Your task to perform on an android device: turn on sleep mode Image 0: 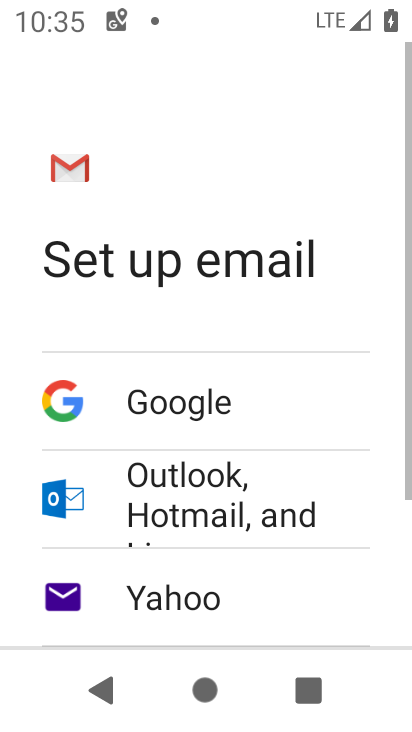
Step 0: press home button
Your task to perform on an android device: turn on sleep mode Image 1: 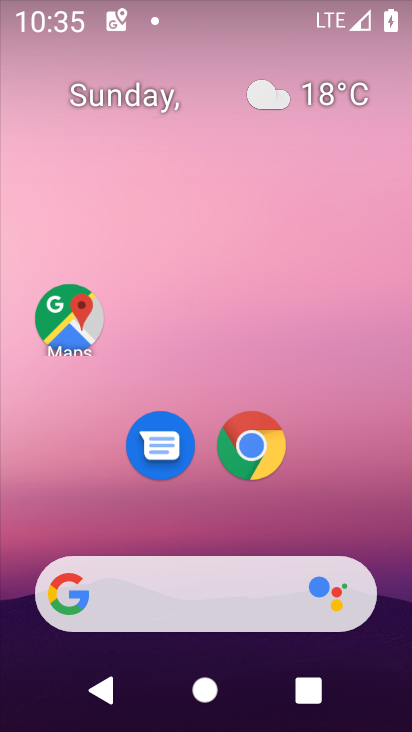
Step 1: drag from (206, 514) to (204, 10)
Your task to perform on an android device: turn on sleep mode Image 2: 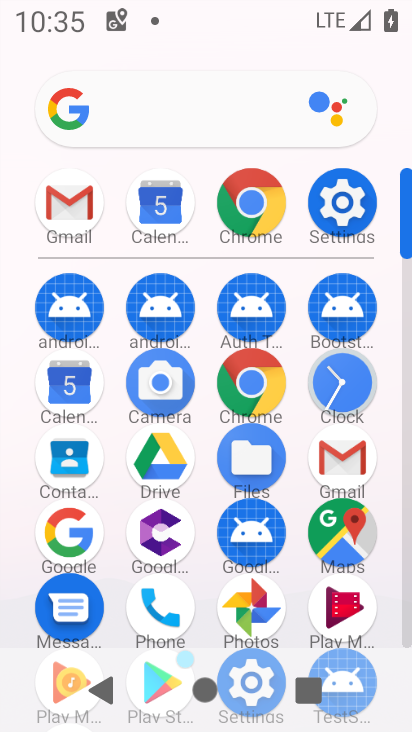
Step 2: click (338, 199)
Your task to perform on an android device: turn on sleep mode Image 3: 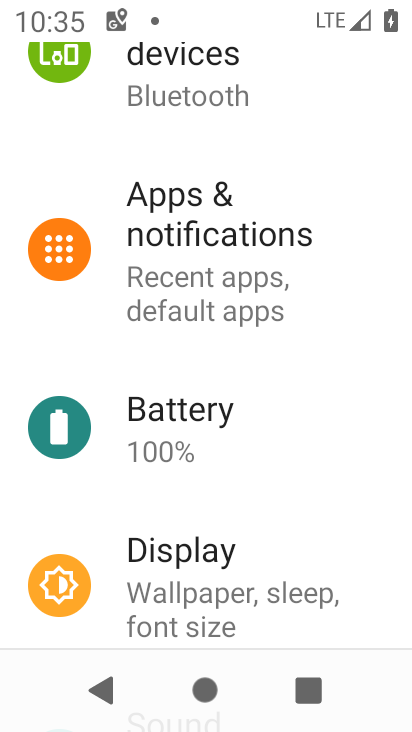
Step 3: click (253, 566)
Your task to perform on an android device: turn on sleep mode Image 4: 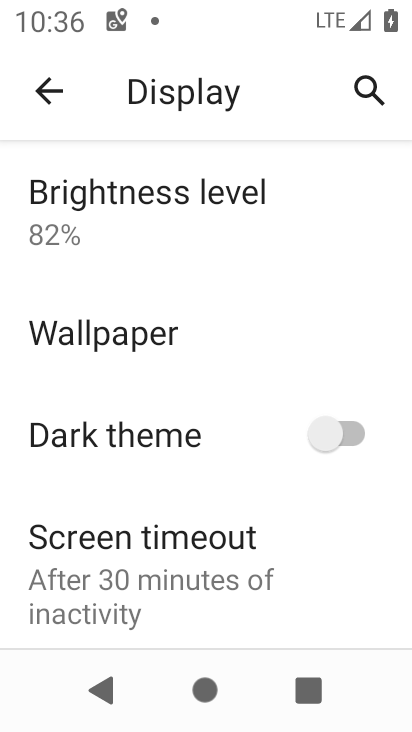
Step 4: task complete